Your task to perform on an android device: toggle airplane mode Image 0: 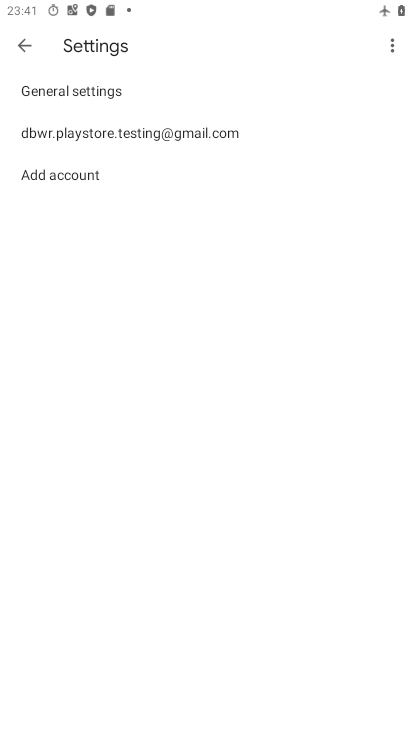
Step 0: press home button
Your task to perform on an android device: toggle airplane mode Image 1: 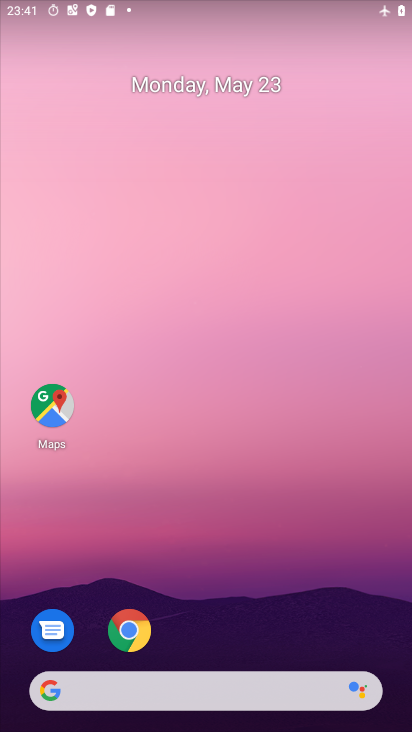
Step 1: drag from (213, 632) to (217, 3)
Your task to perform on an android device: toggle airplane mode Image 2: 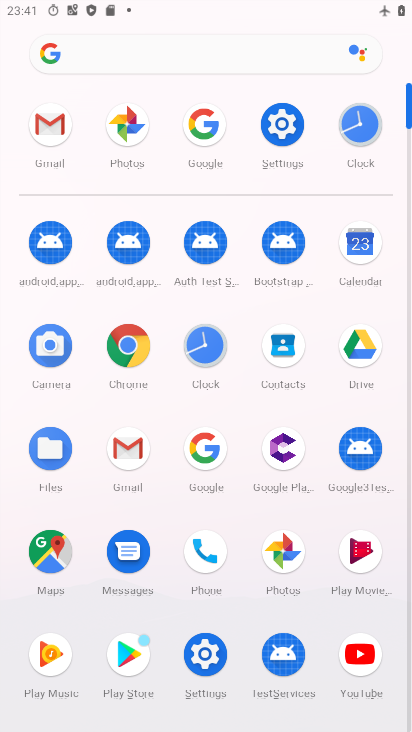
Step 2: click (282, 129)
Your task to perform on an android device: toggle airplane mode Image 3: 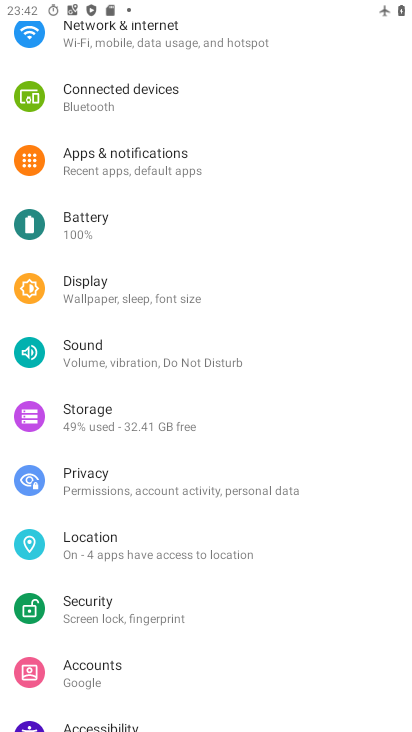
Step 3: click (126, 40)
Your task to perform on an android device: toggle airplane mode Image 4: 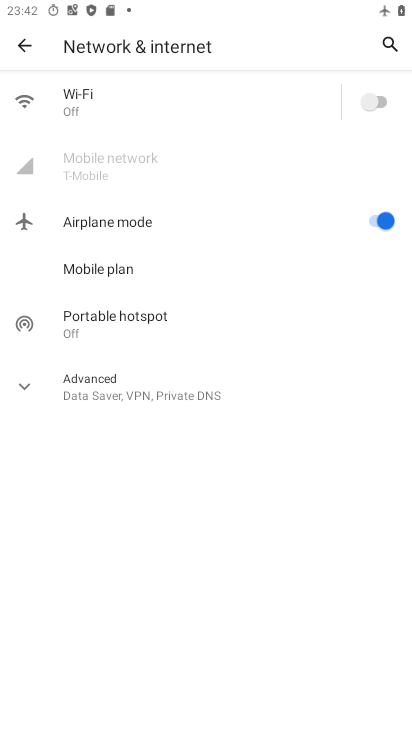
Step 4: click (380, 225)
Your task to perform on an android device: toggle airplane mode Image 5: 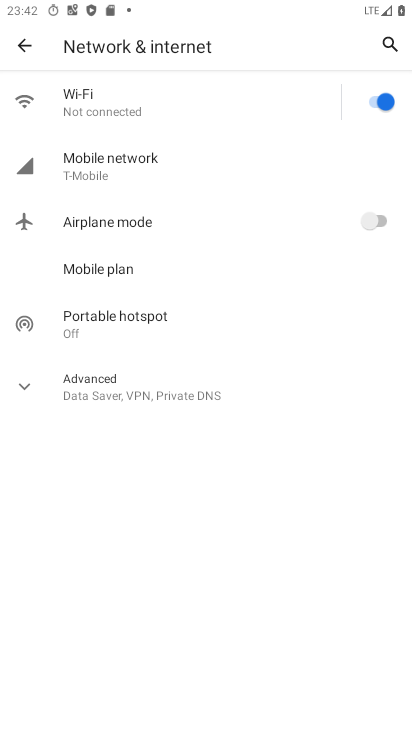
Step 5: task complete